Your task to perform on an android device: open app "NewsBreak: Local News & Alerts" Image 0: 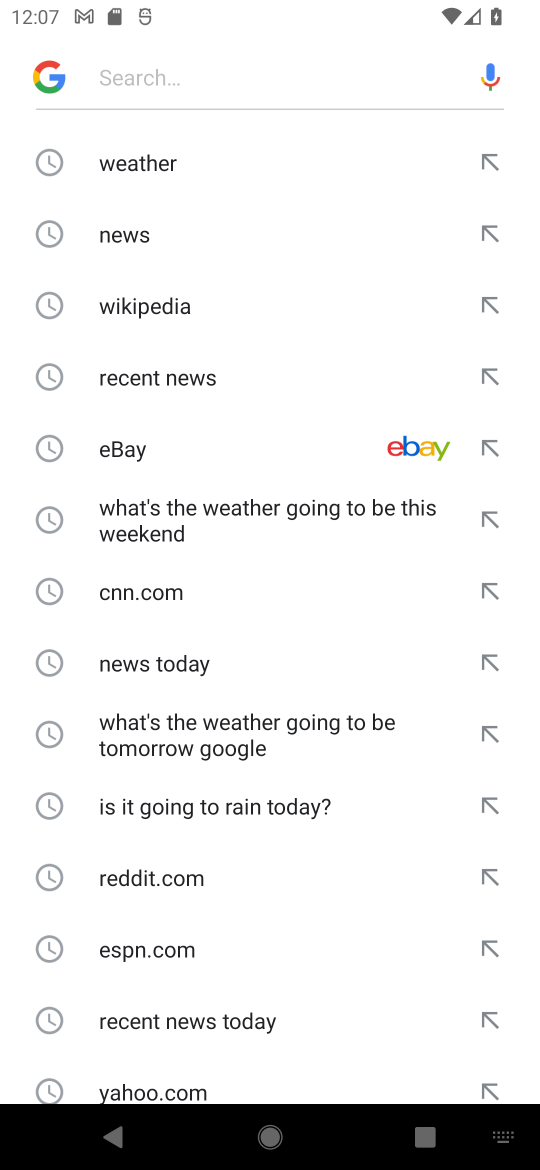
Step 0: press home button
Your task to perform on an android device: open app "NewsBreak: Local News & Alerts" Image 1: 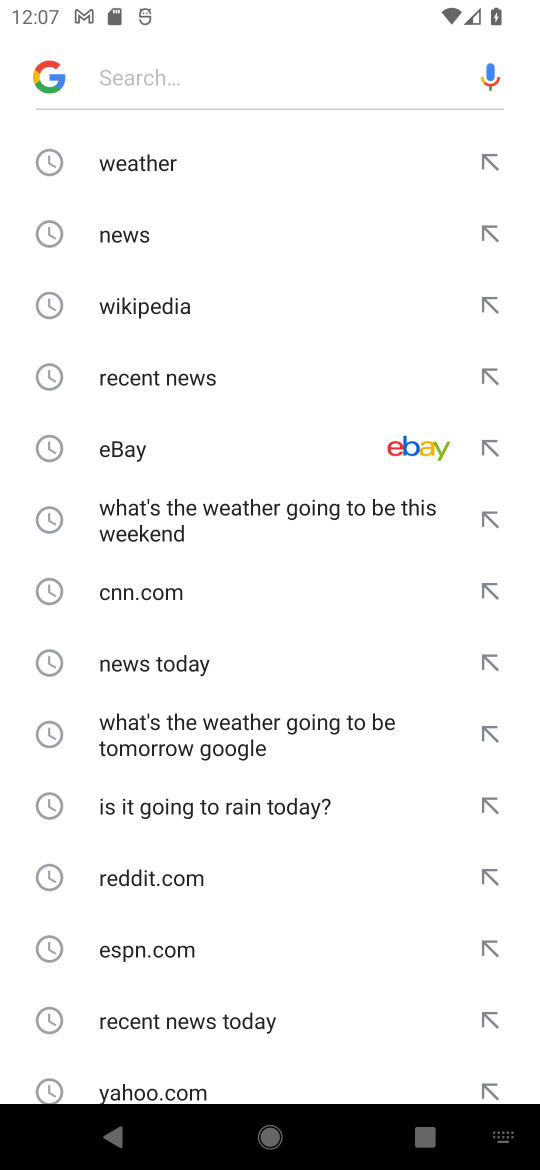
Step 1: press home button
Your task to perform on an android device: open app "NewsBreak: Local News & Alerts" Image 2: 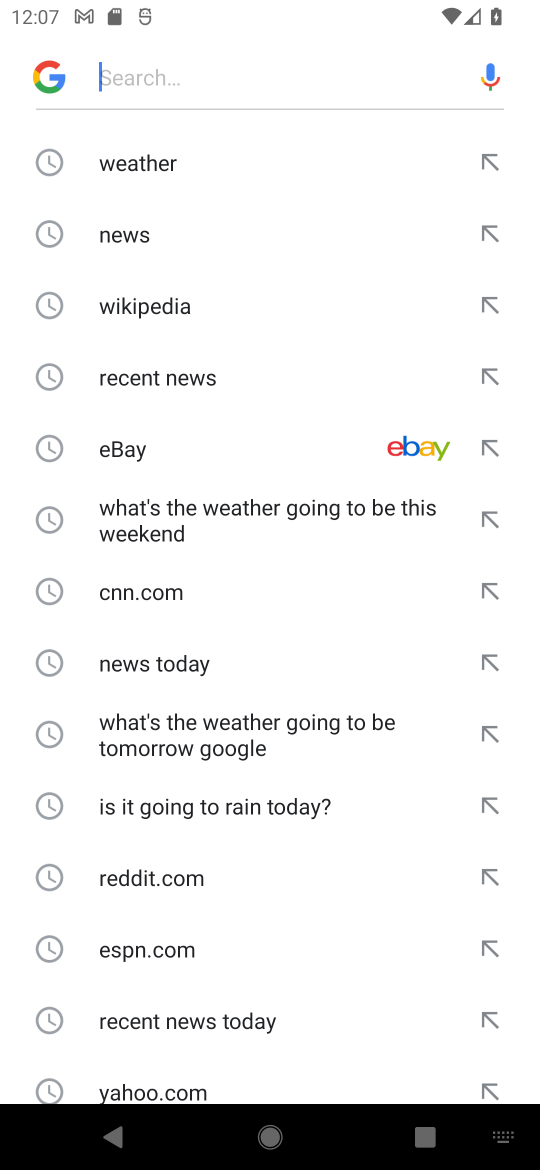
Step 2: press home button
Your task to perform on an android device: open app "NewsBreak: Local News & Alerts" Image 3: 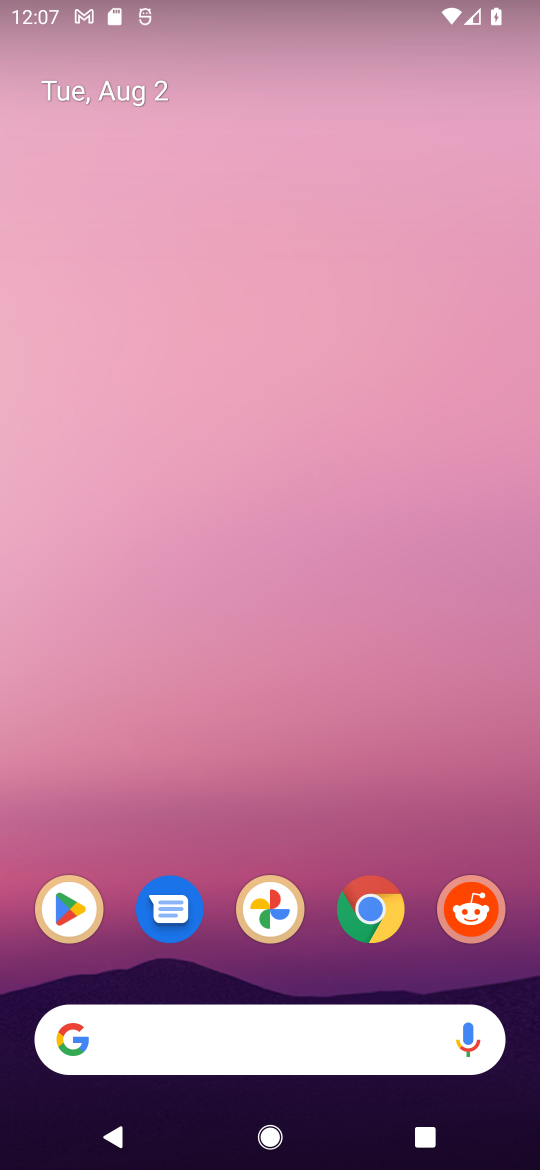
Step 3: click (60, 894)
Your task to perform on an android device: open app "NewsBreak: Local News & Alerts" Image 4: 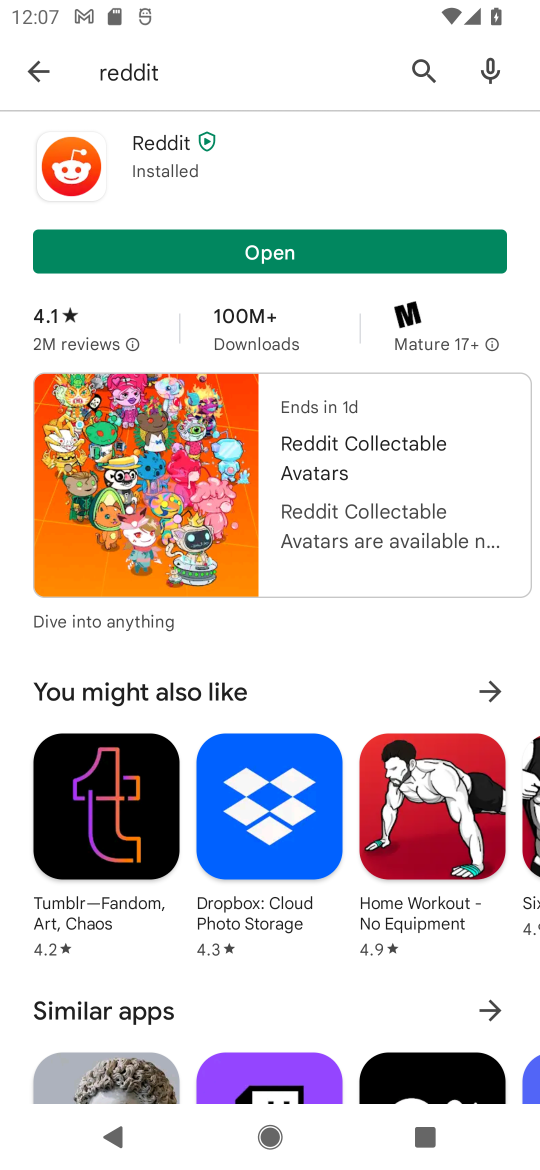
Step 4: click (430, 68)
Your task to perform on an android device: open app "NewsBreak: Local News & Alerts" Image 5: 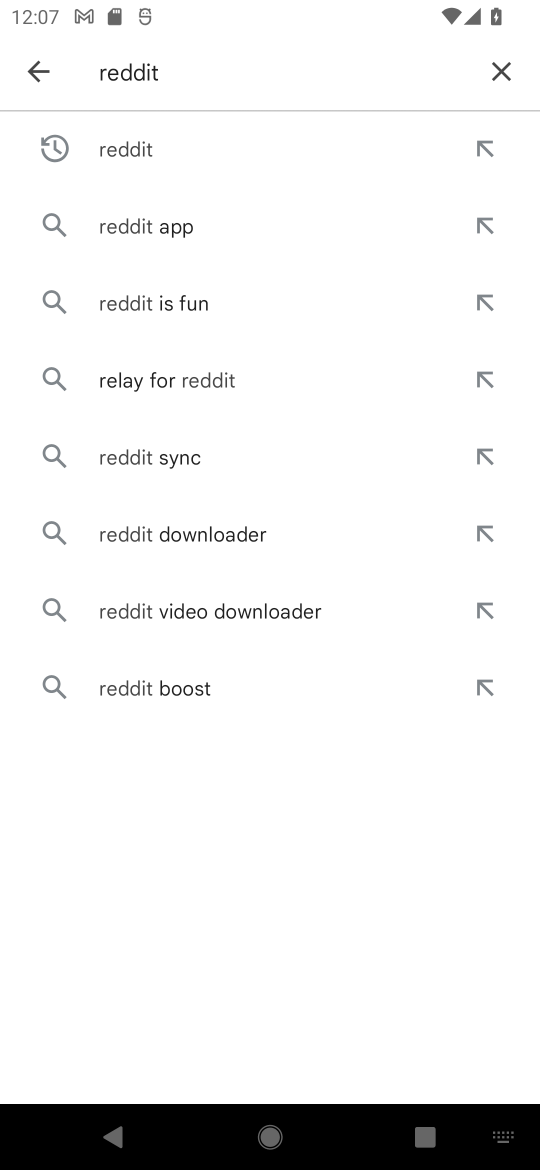
Step 5: click (501, 59)
Your task to perform on an android device: open app "NewsBreak: Local News & Alerts" Image 6: 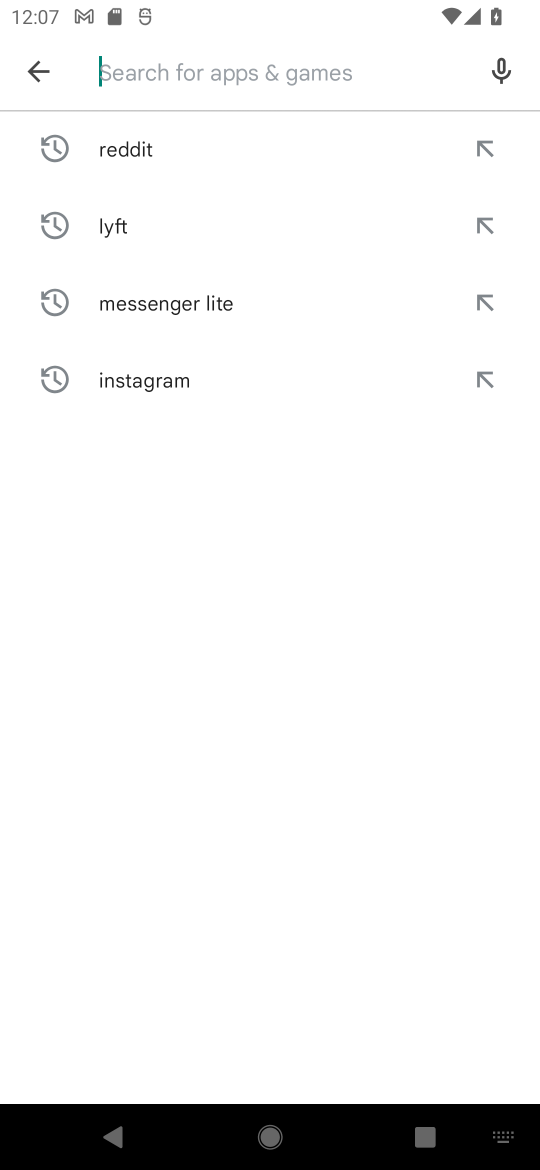
Step 6: type "NewsBreak"
Your task to perform on an android device: open app "NewsBreak: Local News & Alerts" Image 7: 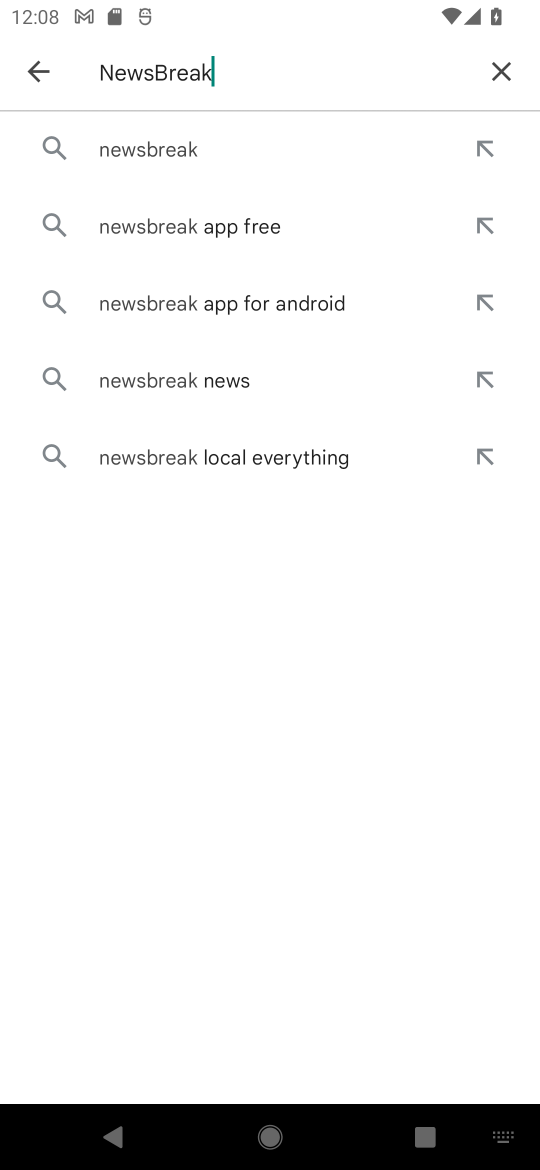
Step 7: click (86, 145)
Your task to perform on an android device: open app "NewsBreak: Local News & Alerts" Image 8: 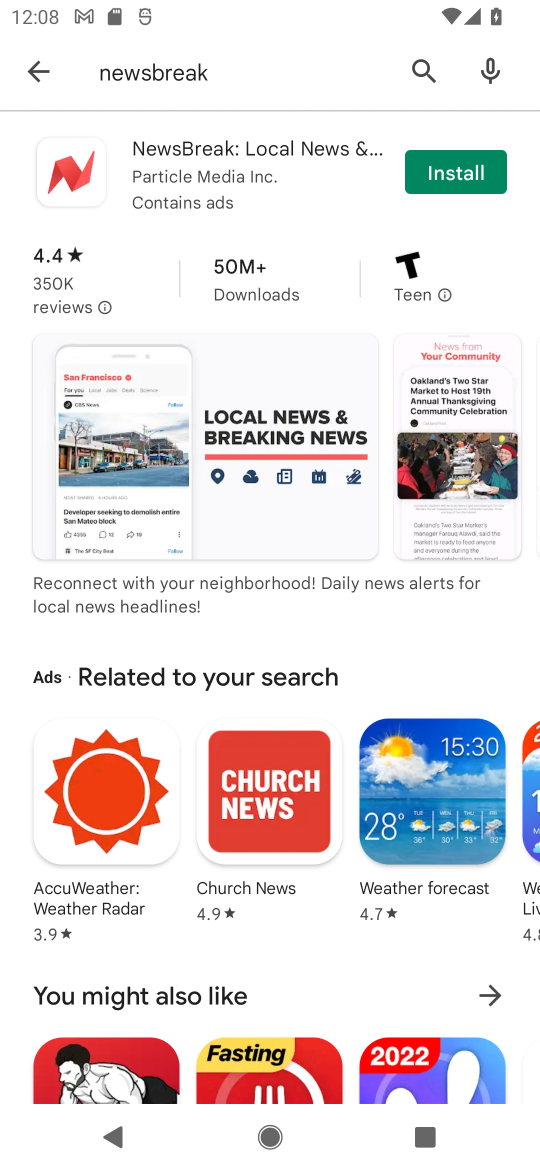
Step 8: task complete